Your task to perform on an android device: Check the weather Image 0: 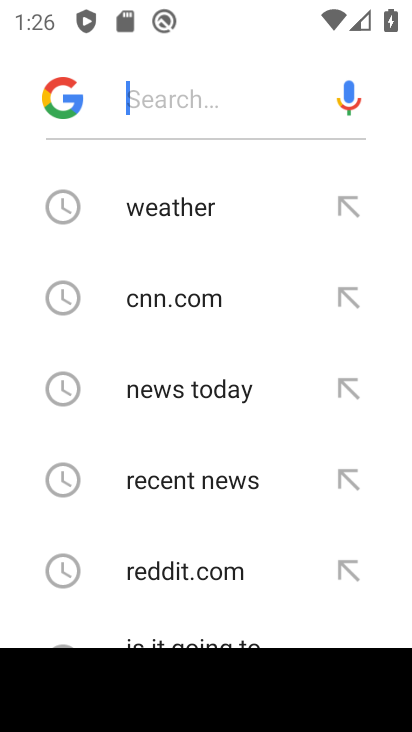
Step 0: click (174, 196)
Your task to perform on an android device: Check the weather Image 1: 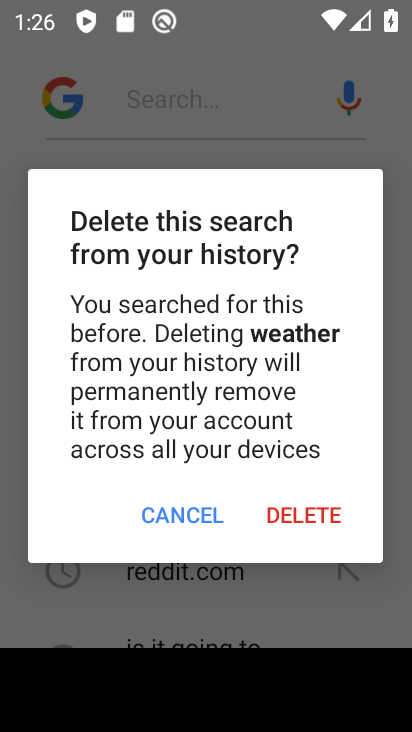
Step 1: click (173, 521)
Your task to perform on an android device: Check the weather Image 2: 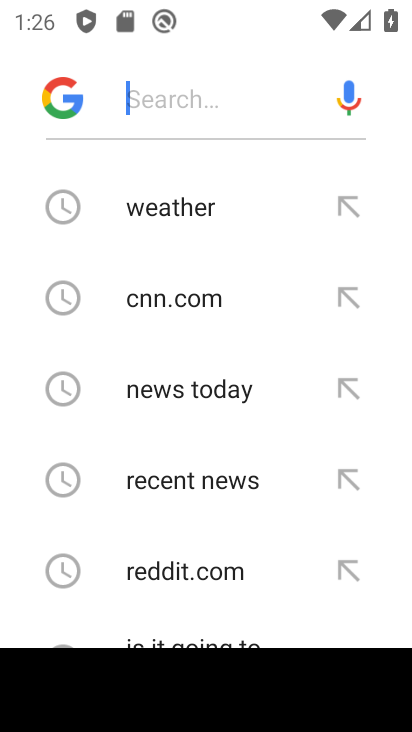
Step 2: click (241, 226)
Your task to perform on an android device: Check the weather Image 3: 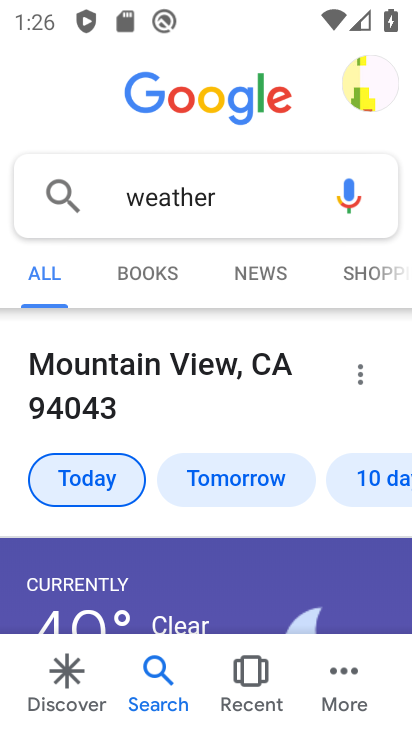
Step 3: task complete